Your task to perform on an android device: Open Google Image 0: 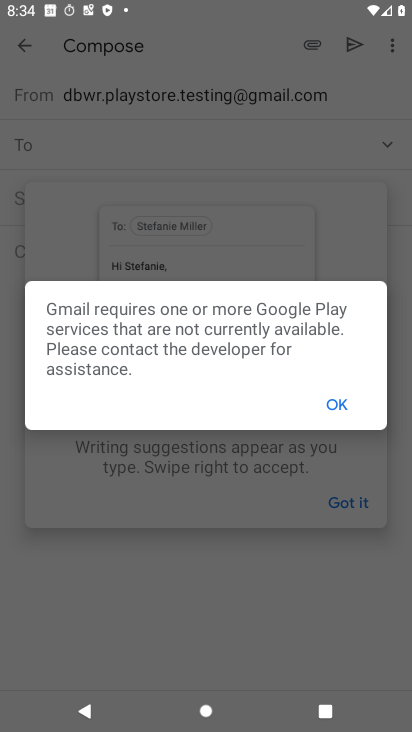
Step 0: press home button
Your task to perform on an android device: Open Google Image 1: 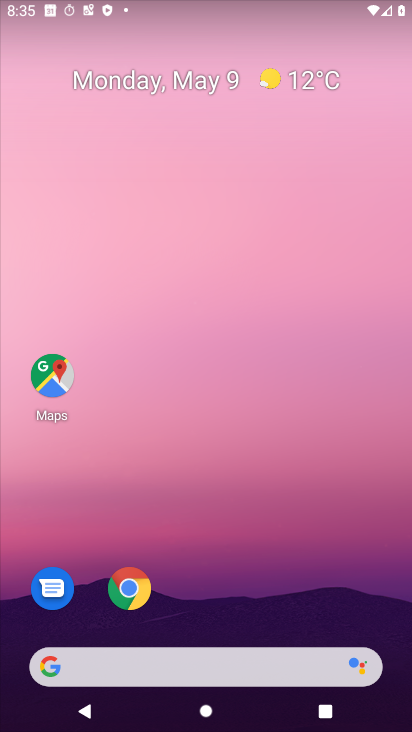
Step 1: drag from (156, 668) to (218, 151)
Your task to perform on an android device: Open Google Image 2: 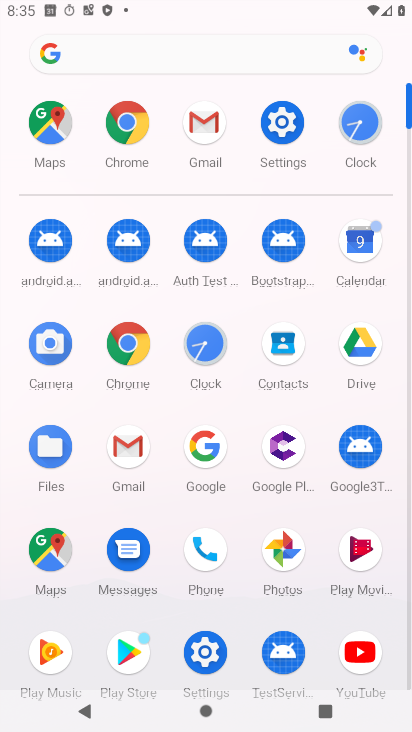
Step 2: click (195, 453)
Your task to perform on an android device: Open Google Image 3: 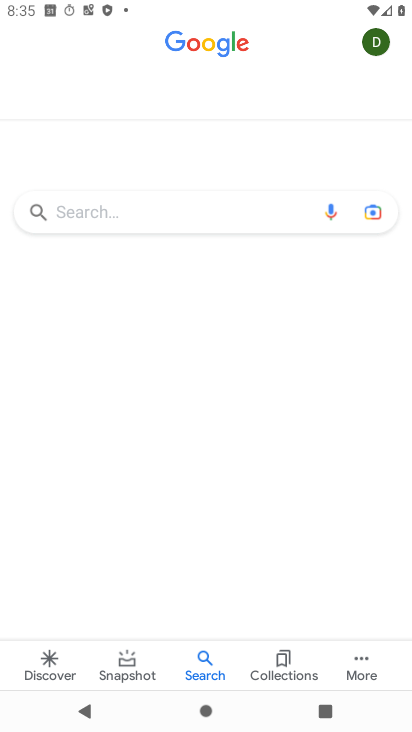
Step 3: task complete